Your task to perform on an android device: Go to accessibility settings Image 0: 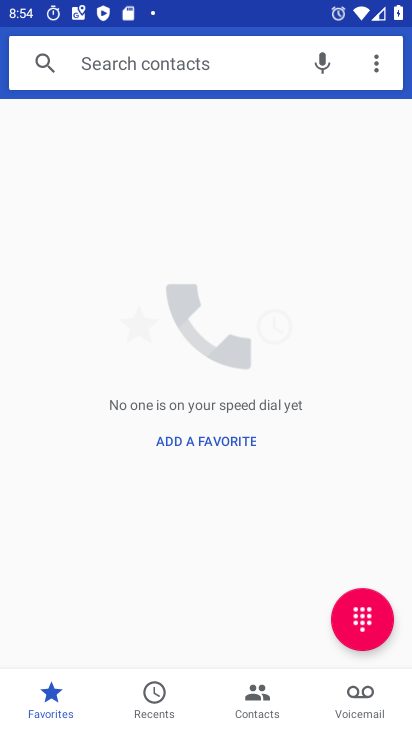
Step 0: press home button
Your task to perform on an android device: Go to accessibility settings Image 1: 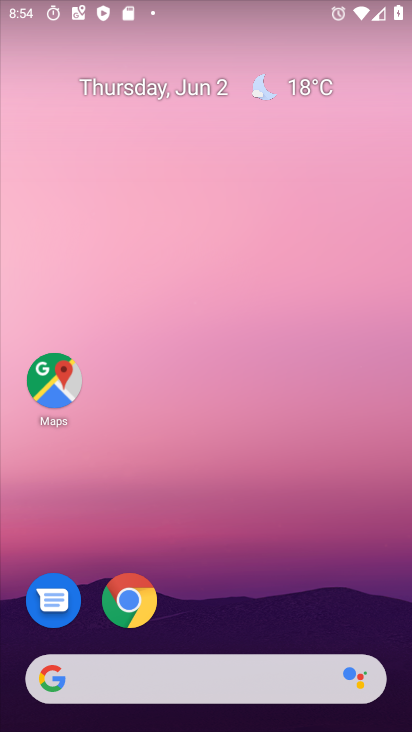
Step 1: drag from (343, 589) to (348, 182)
Your task to perform on an android device: Go to accessibility settings Image 2: 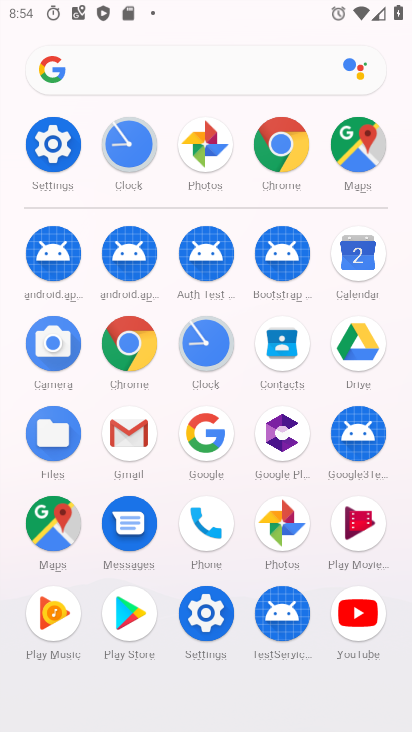
Step 2: click (197, 616)
Your task to perform on an android device: Go to accessibility settings Image 3: 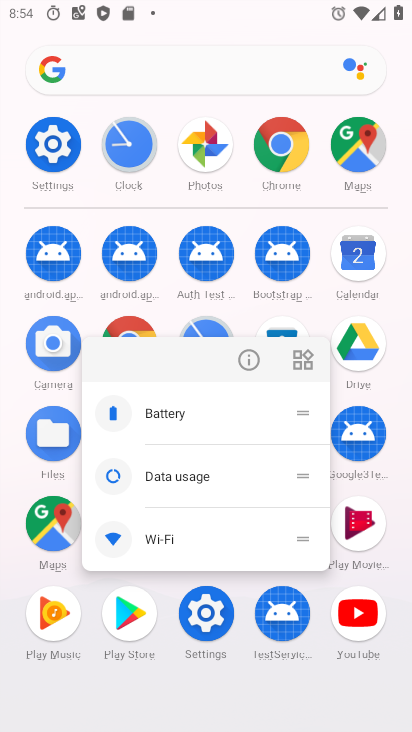
Step 3: click (197, 616)
Your task to perform on an android device: Go to accessibility settings Image 4: 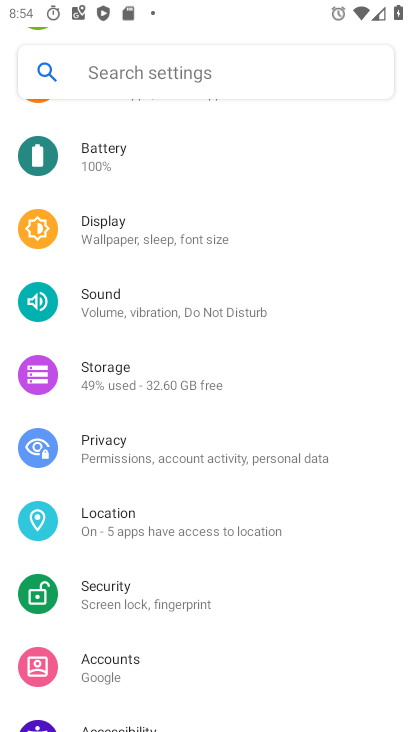
Step 4: drag from (343, 275) to (342, 401)
Your task to perform on an android device: Go to accessibility settings Image 5: 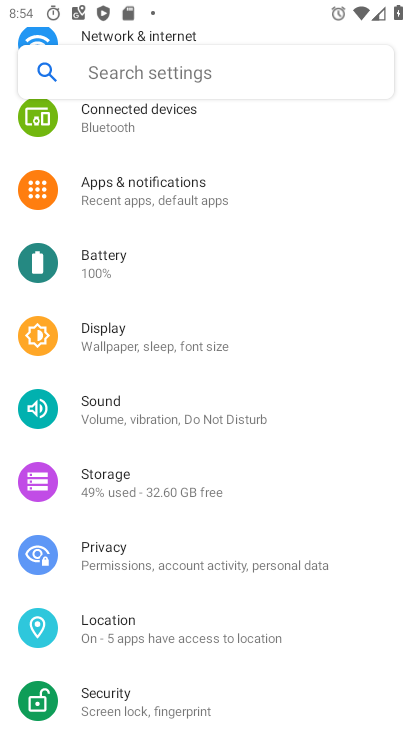
Step 5: drag from (335, 228) to (337, 346)
Your task to perform on an android device: Go to accessibility settings Image 6: 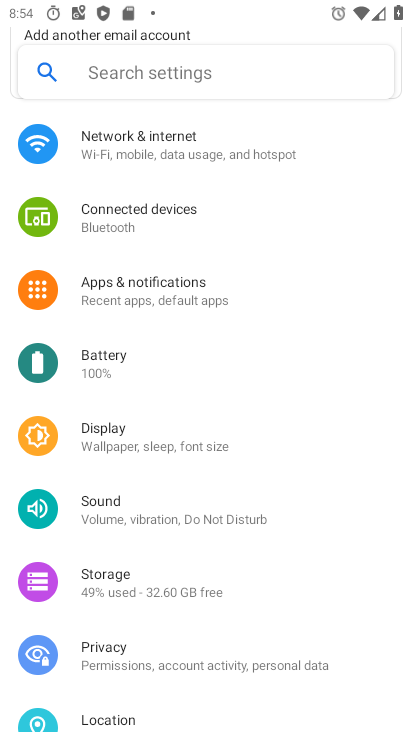
Step 6: drag from (335, 218) to (335, 377)
Your task to perform on an android device: Go to accessibility settings Image 7: 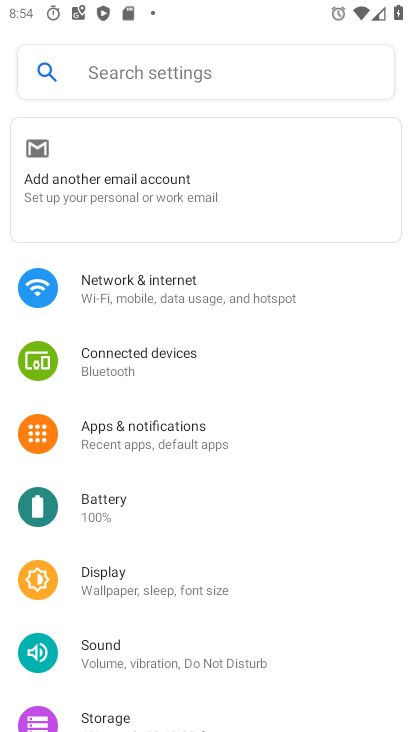
Step 7: drag from (345, 467) to (346, 367)
Your task to perform on an android device: Go to accessibility settings Image 8: 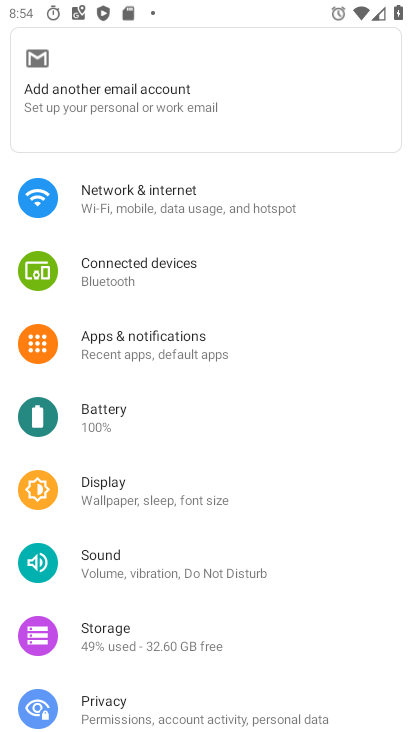
Step 8: drag from (343, 574) to (358, 444)
Your task to perform on an android device: Go to accessibility settings Image 9: 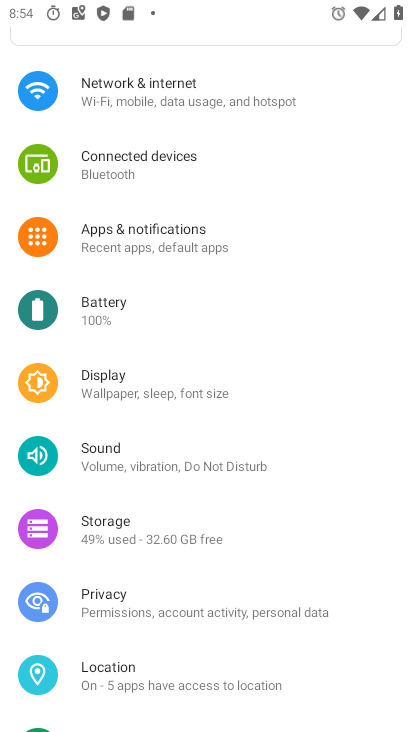
Step 9: drag from (355, 579) to (356, 440)
Your task to perform on an android device: Go to accessibility settings Image 10: 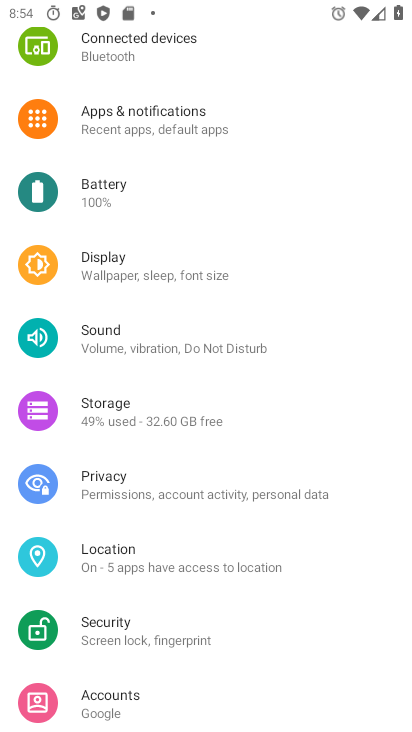
Step 10: drag from (358, 582) to (353, 460)
Your task to perform on an android device: Go to accessibility settings Image 11: 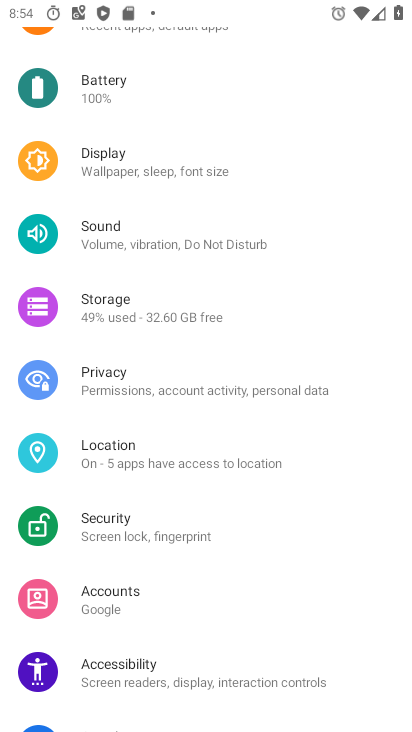
Step 11: drag from (335, 564) to (343, 444)
Your task to perform on an android device: Go to accessibility settings Image 12: 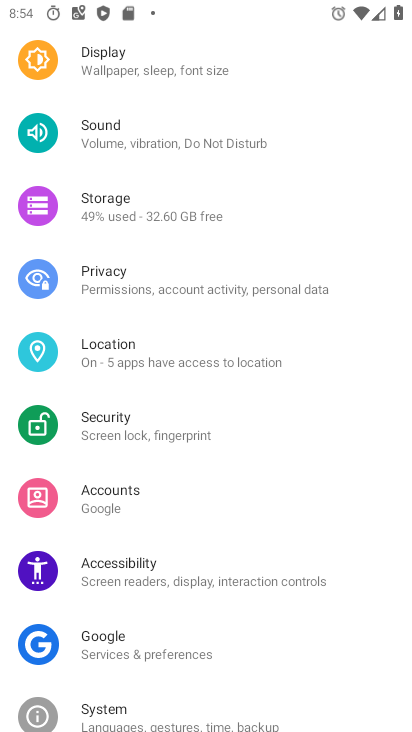
Step 12: drag from (333, 605) to (337, 472)
Your task to perform on an android device: Go to accessibility settings Image 13: 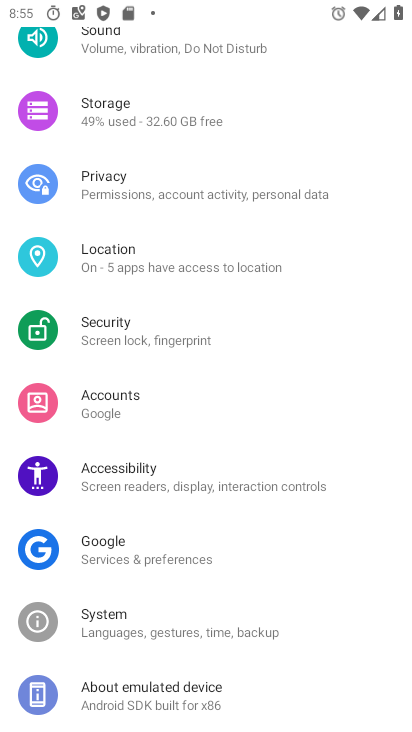
Step 13: click (324, 482)
Your task to perform on an android device: Go to accessibility settings Image 14: 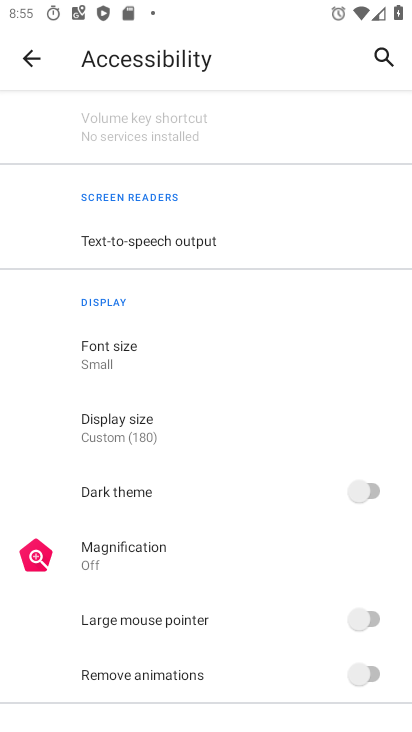
Step 14: task complete